Your task to perform on an android device: change text size in settings app Image 0: 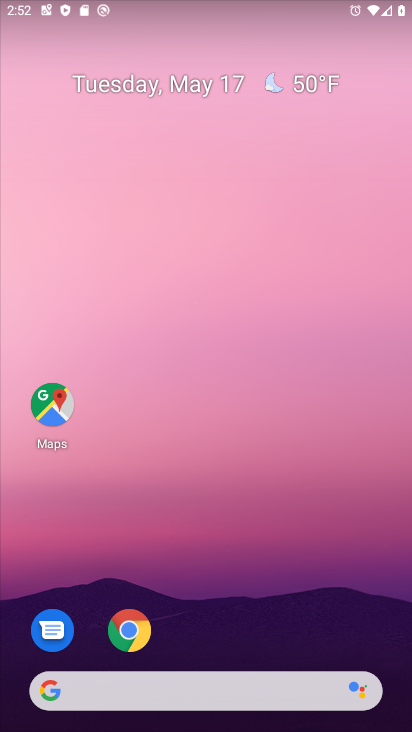
Step 0: drag from (215, 635) to (280, 201)
Your task to perform on an android device: change text size in settings app Image 1: 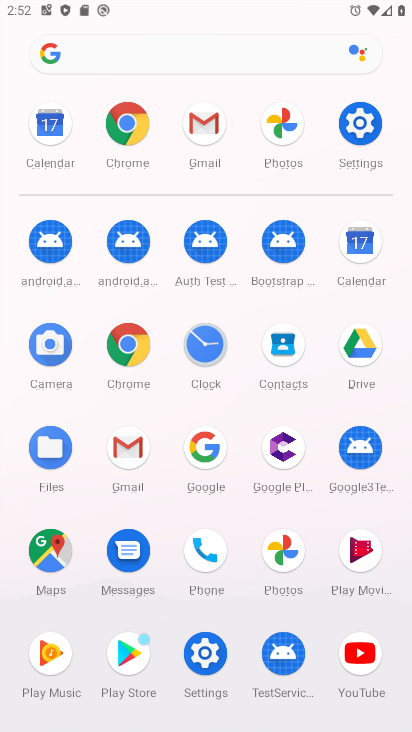
Step 1: click (370, 120)
Your task to perform on an android device: change text size in settings app Image 2: 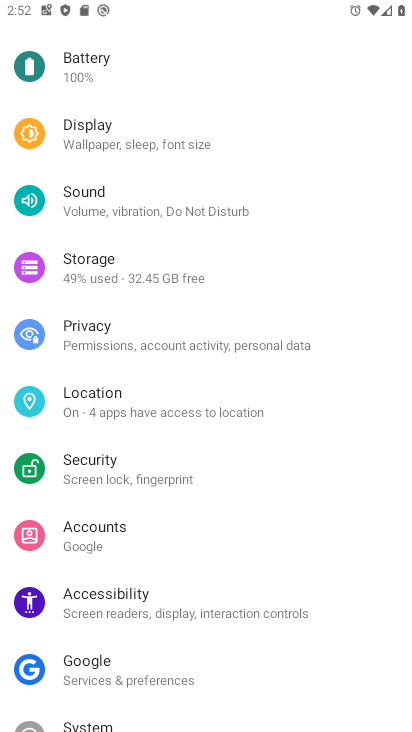
Step 2: click (120, 594)
Your task to perform on an android device: change text size in settings app Image 3: 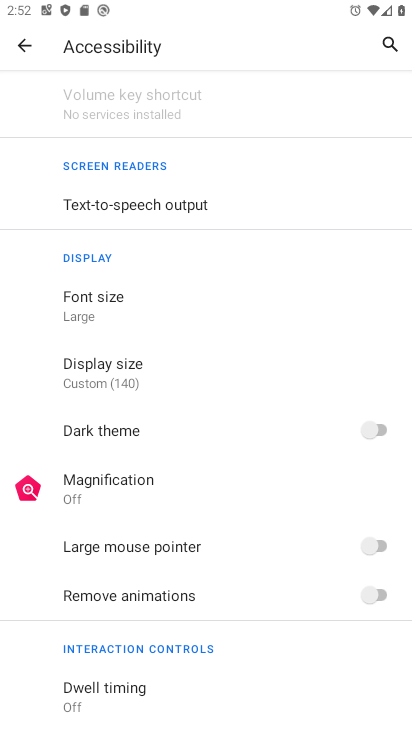
Step 3: click (89, 331)
Your task to perform on an android device: change text size in settings app Image 4: 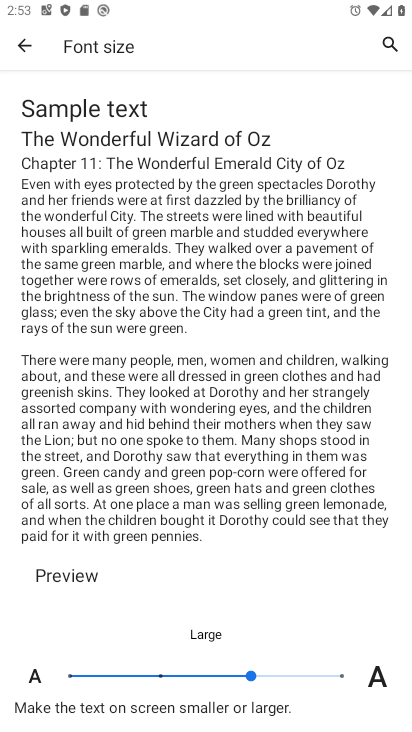
Step 4: click (163, 677)
Your task to perform on an android device: change text size in settings app Image 5: 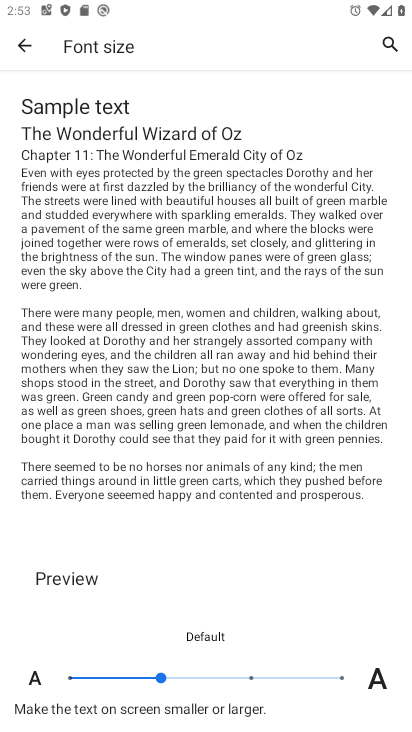
Step 5: task complete